Your task to perform on an android device: check the backup settings in the google photos Image 0: 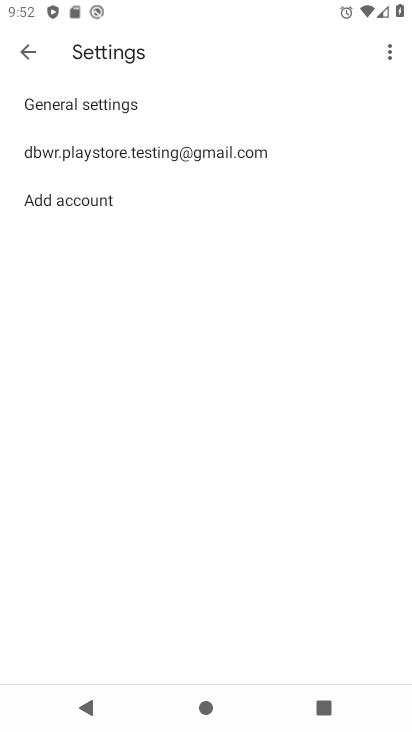
Step 0: press back button
Your task to perform on an android device: check the backup settings in the google photos Image 1: 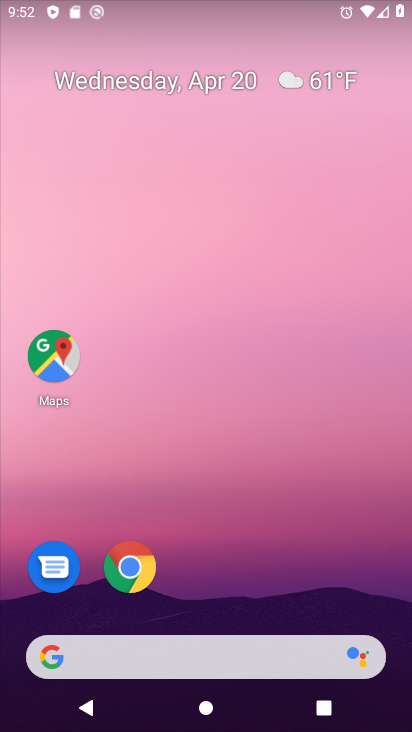
Step 1: drag from (203, 552) to (280, 82)
Your task to perform on an android device: check the backup settings in the google photos Image 2: 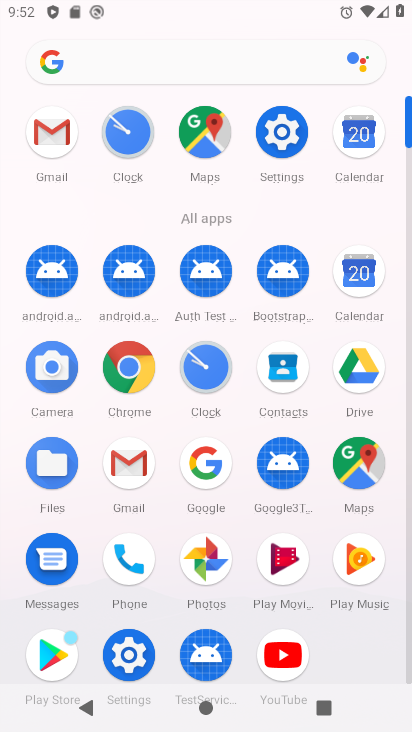
Step 2: click (204, 561)
Your task to perform on an android device: check the backup settings in the google photos Image 3: 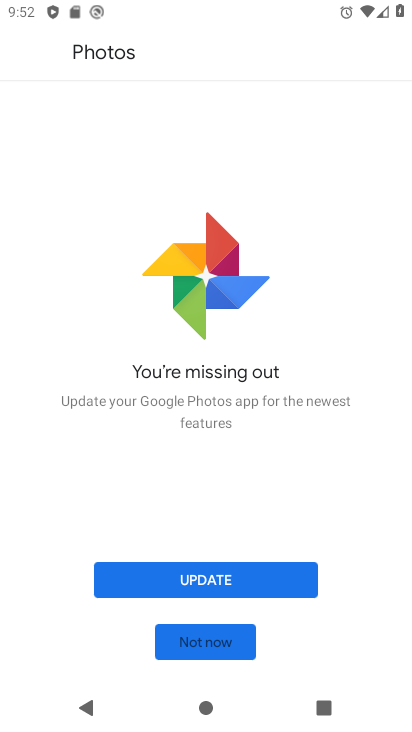
Step 3: click (201, 640)
Your task to perform on an android device: check the backup settings in the google photos Image 4: 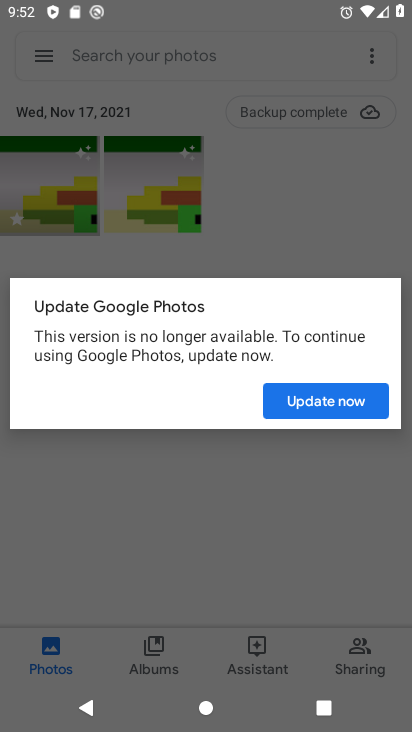
Step 4: click (338, 384)
Your task to perform on an android device: check the backup settings in the google photos Image 5: 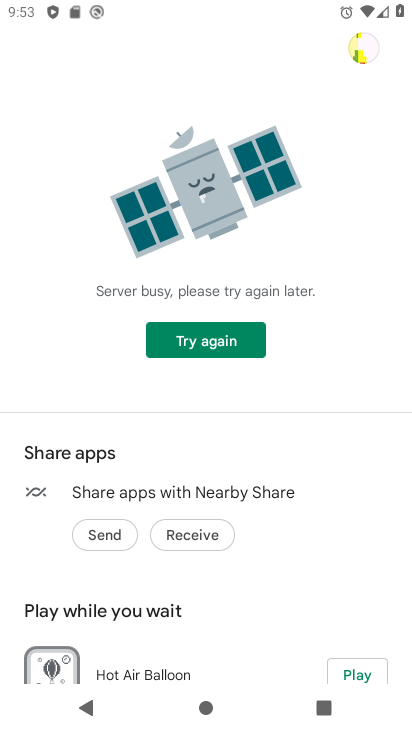
Step 5: press back button
Your task to perform on an android device: check the backup settings in the google photos Image 6: 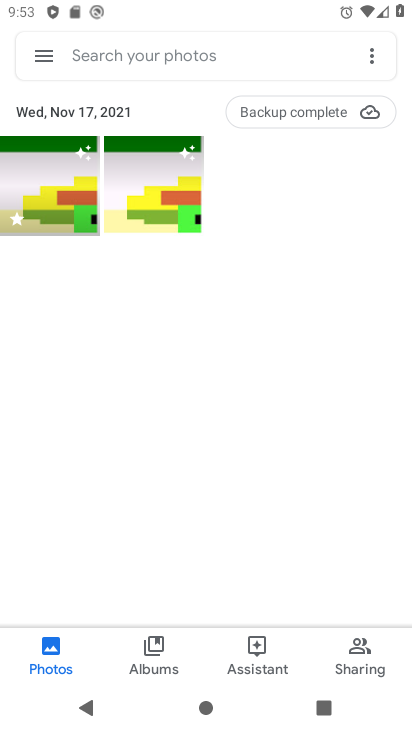
Step 6: click (25, 51)
Your task to perform on an android device: check the backup settings in the google photos Image 7: 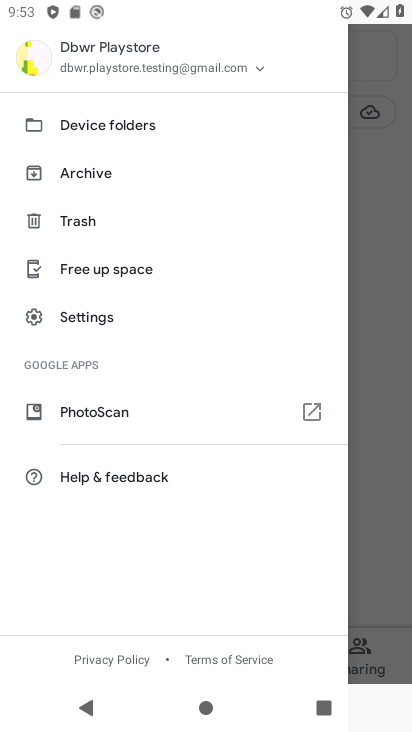
Step 7: click (115, 329)
Your task to perform on an android device: check the backup settings in the google photos Image 8: 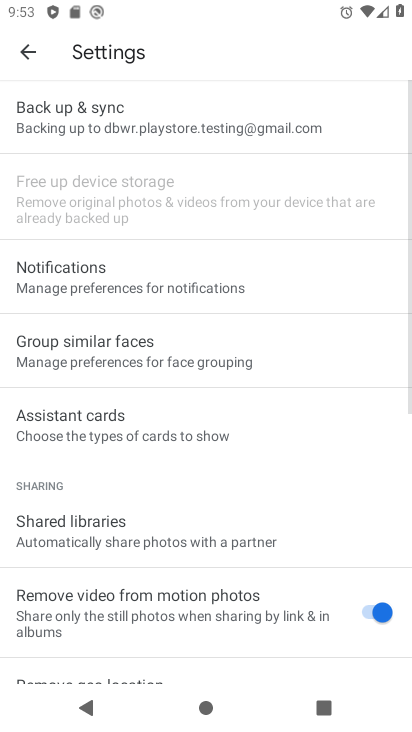
Step 8: click (112, 110)
Your task to perform on an android device: check the backup settings in the google photos Image 9: 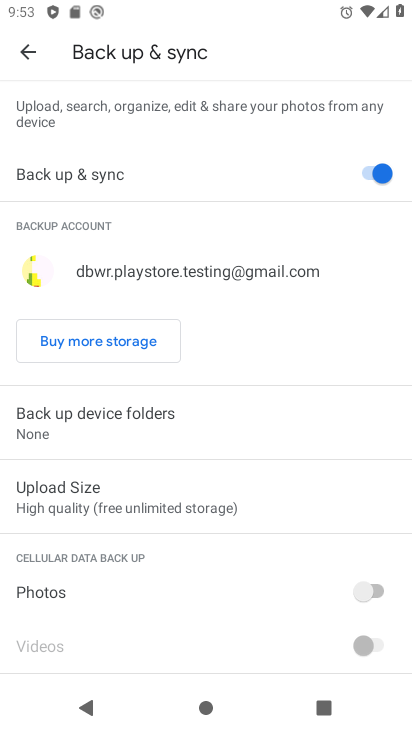
Step 9: task complete